Your task to perform on an android device: Search for seafood restaurants on Google Maps Image 0: 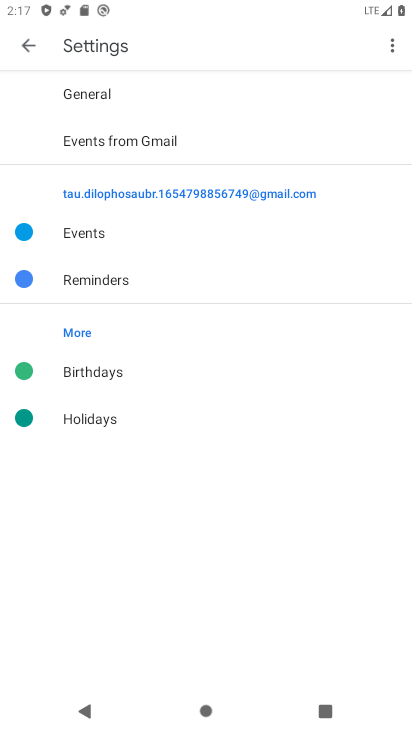
Step 0: click (122, 585)
Your task to perform on an android device: Search for seafood restaurants on Google Maps Image 1: 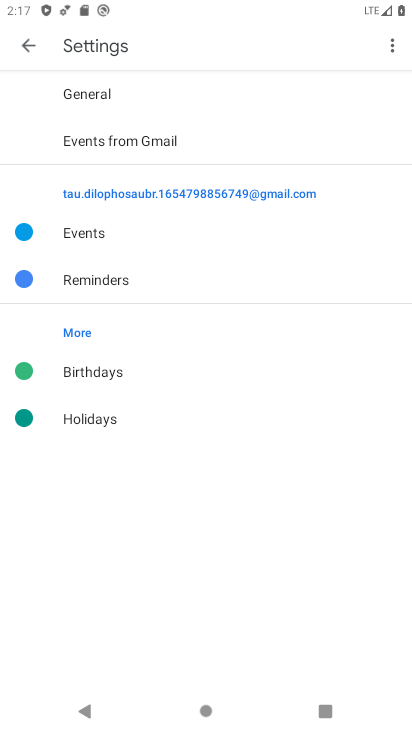
Step 1: click (26, 55)
Your task to perform on an android device: Search for seafood restaurants on Google Maps Image 2: 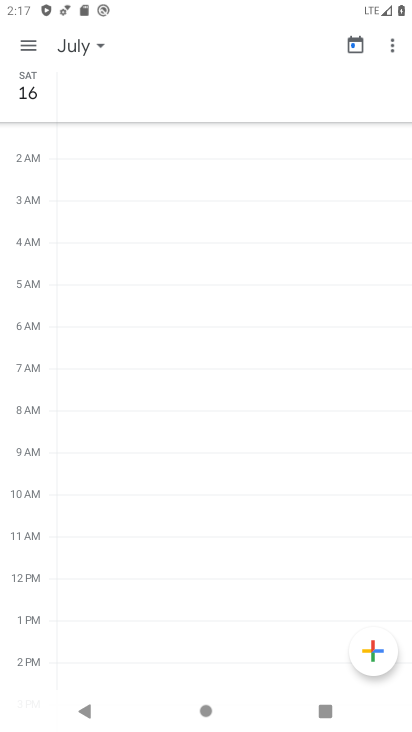
Step 2: press home button
Your task to perform on an android device: Search for seafood restaurants on Google Maps Image 3: 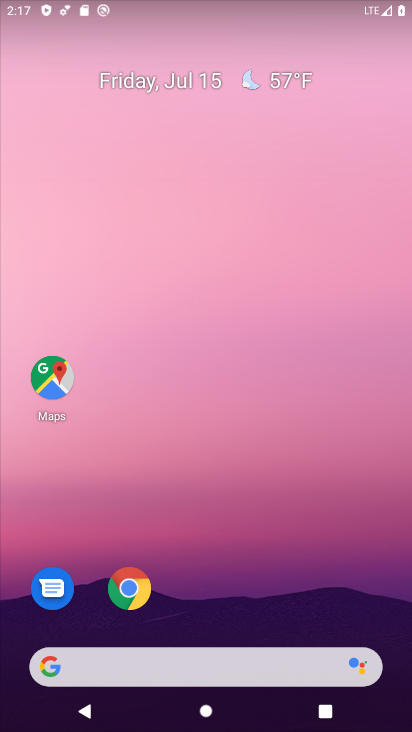
Step 3: click (50, 387)
Your task to perform on an android device: Search for seafood restaurants on Google Maps Image 4: 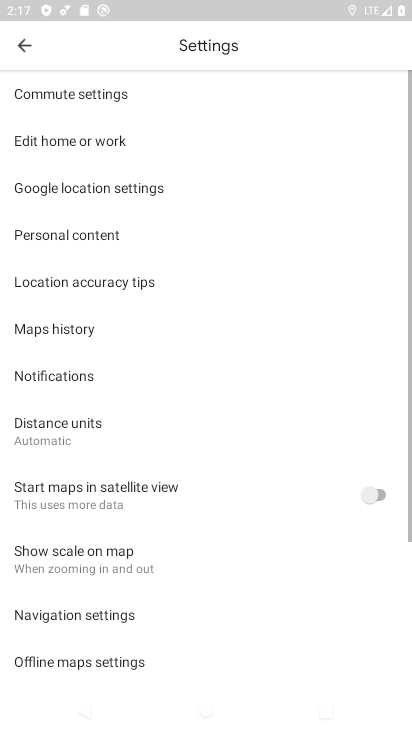
Step 4: click (20, 53)
Your task to perform on an android device: Search for seafood restaurants on Google Maps Image 5: 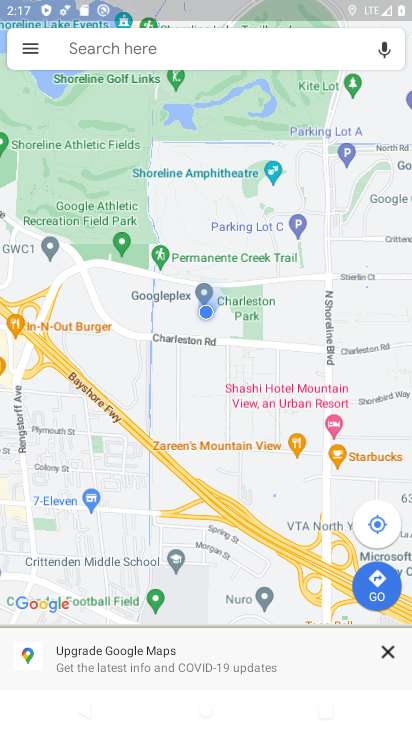
Step 5: click (296, 52)
Your task to perform on an android device: Search for seafood restaurants on Google Maps Image 6: 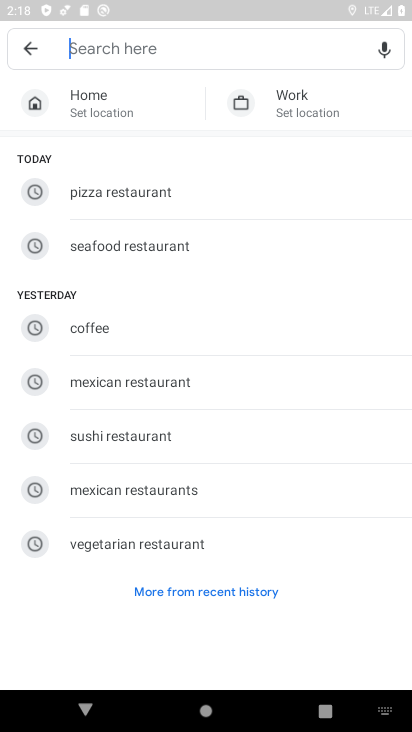
Step 6: click (145, 250)
Your task to perform on an android device: Search for seafood restaurants on Google Maps Image 7: 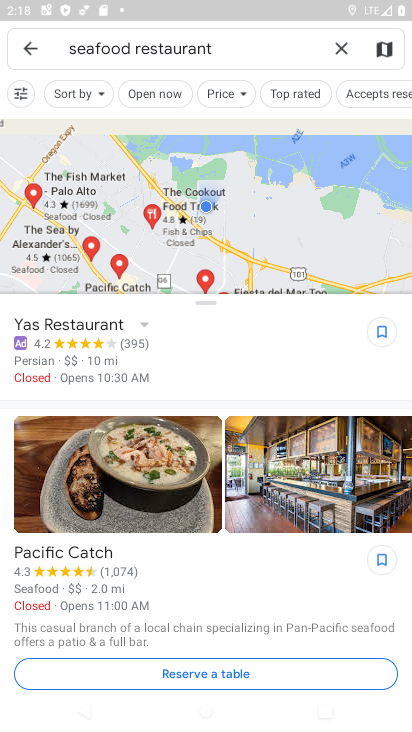
Step 7: task complete